Your task to perform on an android device: check the backup settings in the google photos Image 0: 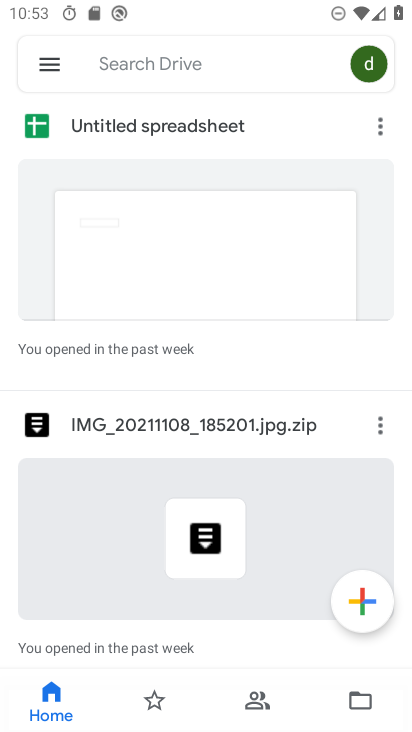
Step 0: press home button
Your task to perform on an android device: check the backup settings in the google photos Image 1: 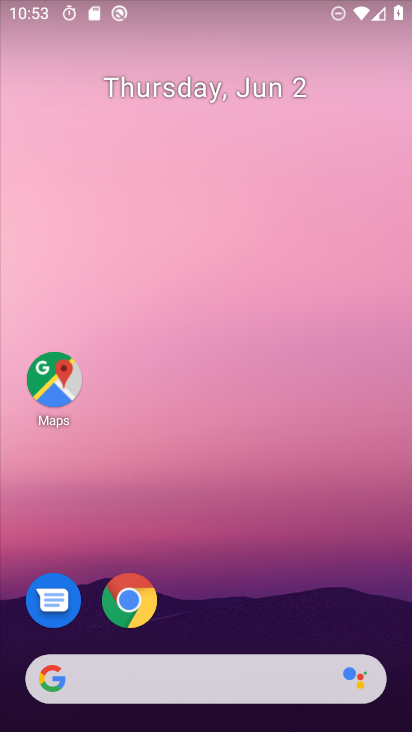
Step 1: drag from (196, 601) to (209, 106)
Your task to perform on an android device: check the backup settings in the google photos Image 2: 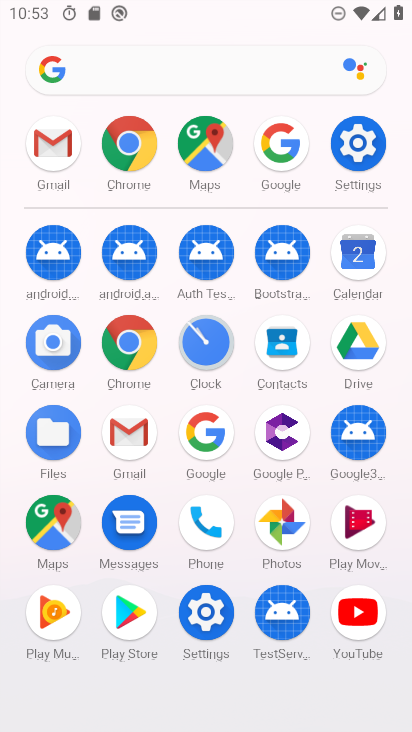
Step 2: click (287, 525)
Your task to perform on an android device: check the backup settings in the google photos Image 3: 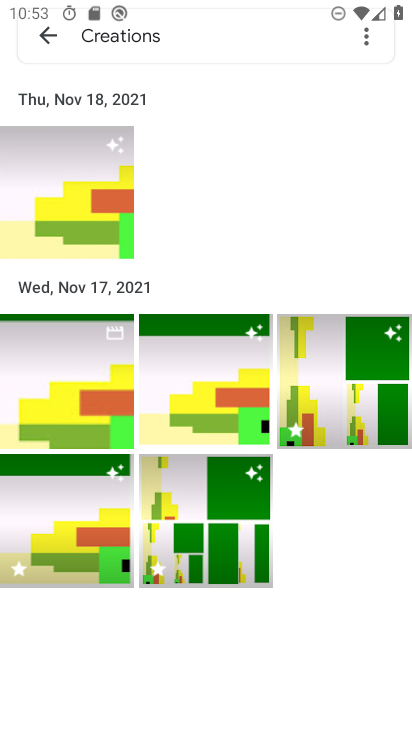
Step 3: press back button
Your task to perform on an android device: check the backup settings in the google photos Image 4: 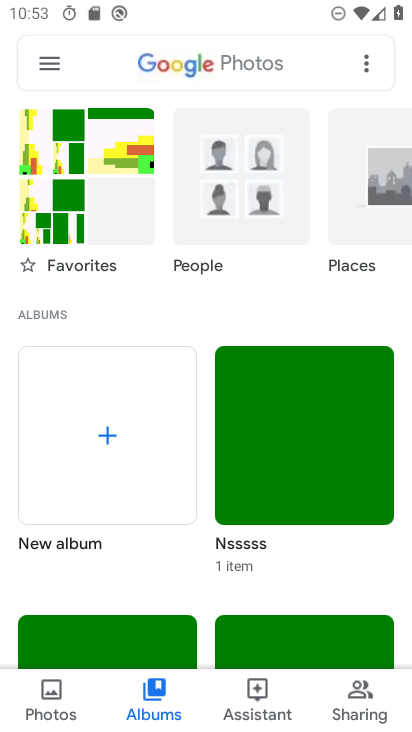
Step 4: click (59, 62)
Your task to perform on an android device: check the backup settings in the google photos Image 5: 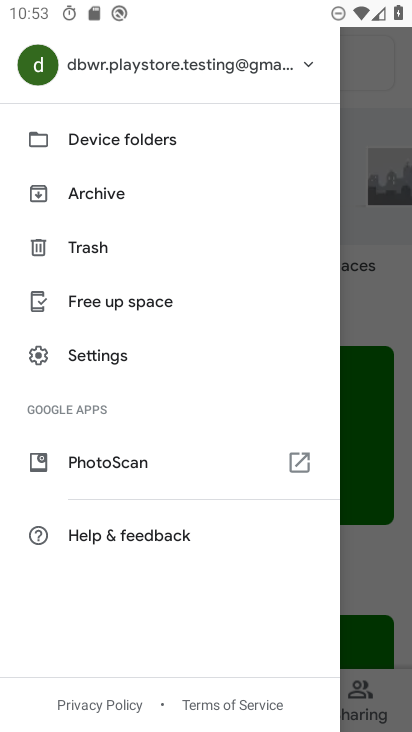
Step 5: click (160, 356)
Your task to perform on an android device: check the backup settings in the google photos Image 6: 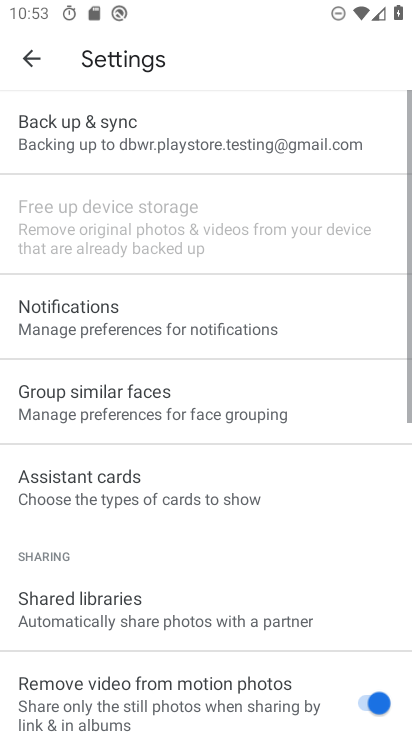
Step 6: click (129, 145)
Your task to perform on an android device: check the backup settings in the google photos Image 7: 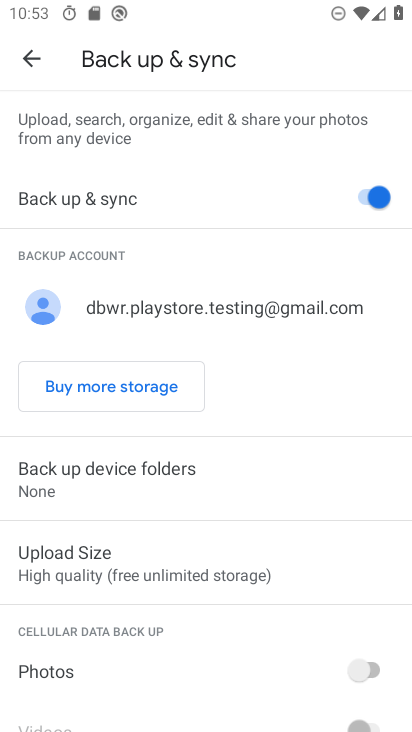
Step 7: task complete